Your task to perform on an android device: Look up the best rated coffee table on Ikea Image 0: 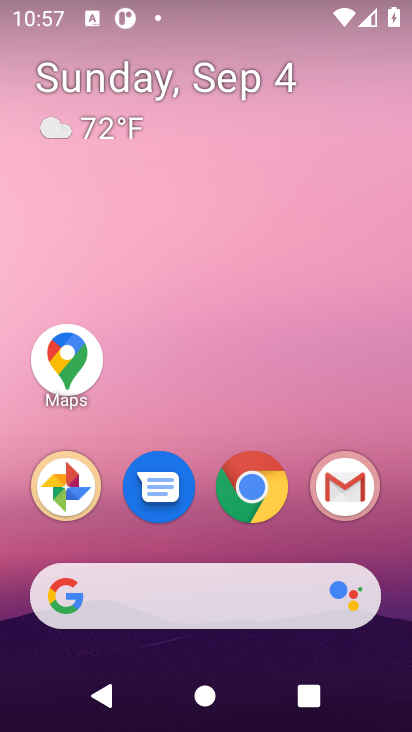
Step 0: click (202, 571)
Your task to perform on an android device: Look up the best rated coffee table on Ikea Image 1: 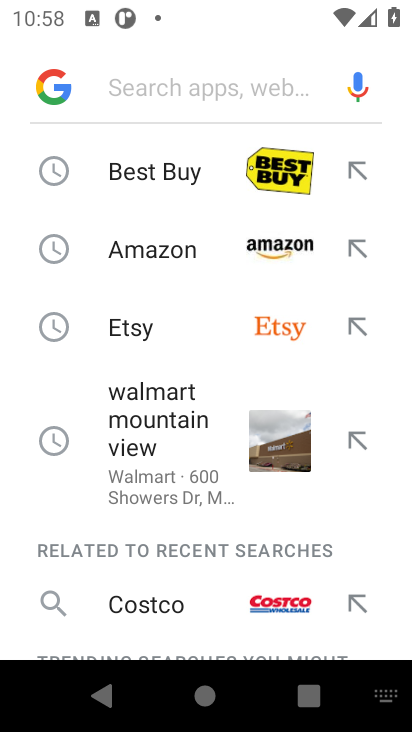
Step 1: type "ikea"
Your task to perform on an android device: Look up the best rated coffee table on Ikea Image 2: 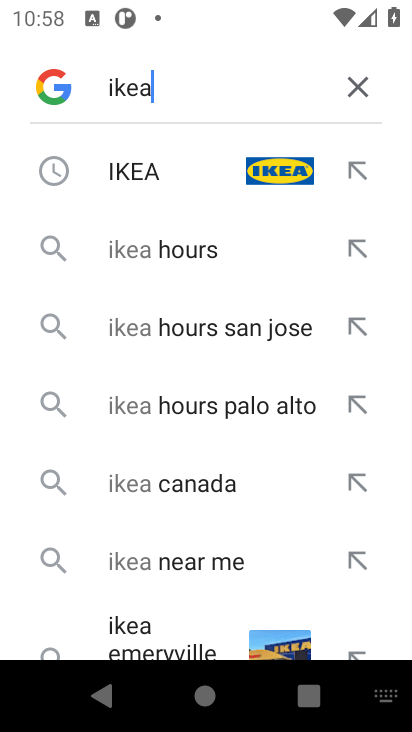
Step 2: click (270, 160)
Your task to perform on an android device: Look up the best rated coffee table on Ikea Image 3: 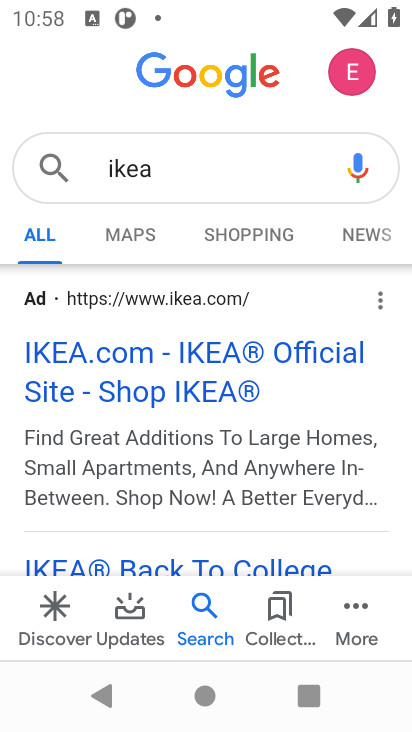
Step 3: click (120, 348)
Your task to perform on an android device: Look up the best rated coffee table on Ikea Image 4: 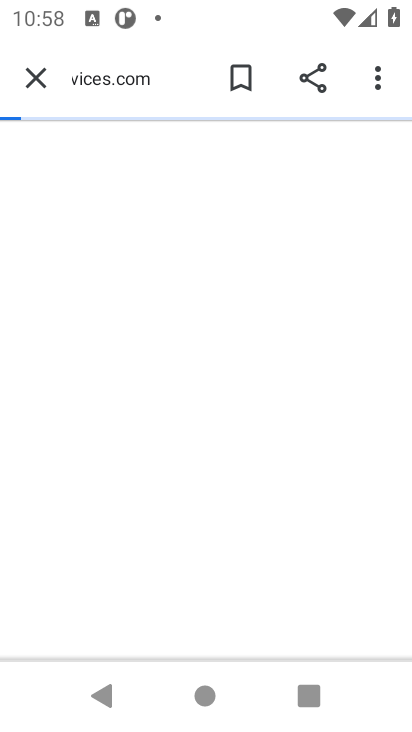
Step 4: click (120, 348)
Your task to perform on an android device: Look up the best rated coffee table on Ikea Image 5: 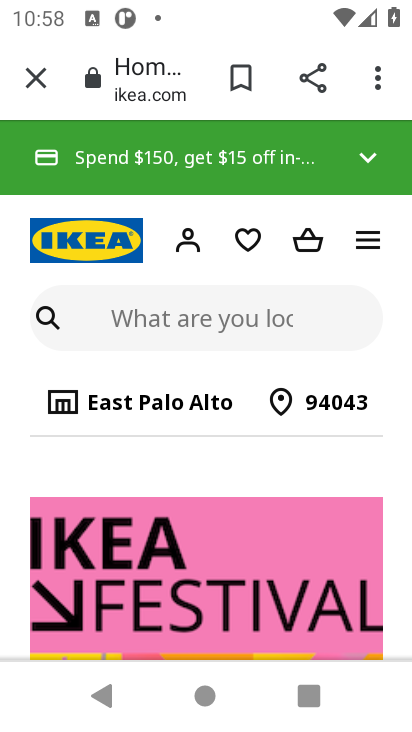
Step 5: click (126, 324)
Your task to perform on an android device: Look up the best rated coffee table on Ikea Image 6: 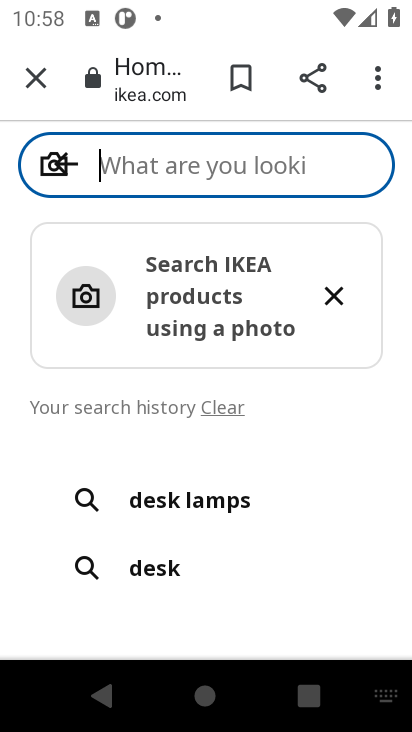
Step 6: type "best rated coffee table"
Your task to perform on an android device: Look up the best rated coffee table on Ikea Image 7: 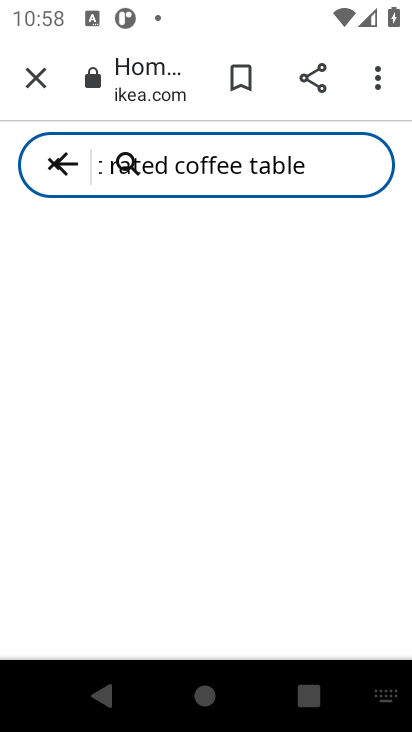
Step 7: click (131, 169)
Your task to perform on an android device: Look up the best rated coffee table on Ikea Image 8: 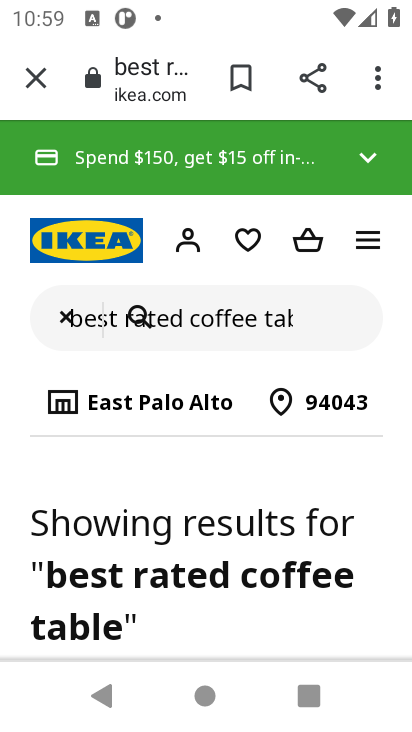
Step 8: task complete